Your task to perform on an android device: install app "Lyft - Rideshare, Bikes, Scooters & Transit" Image 0: 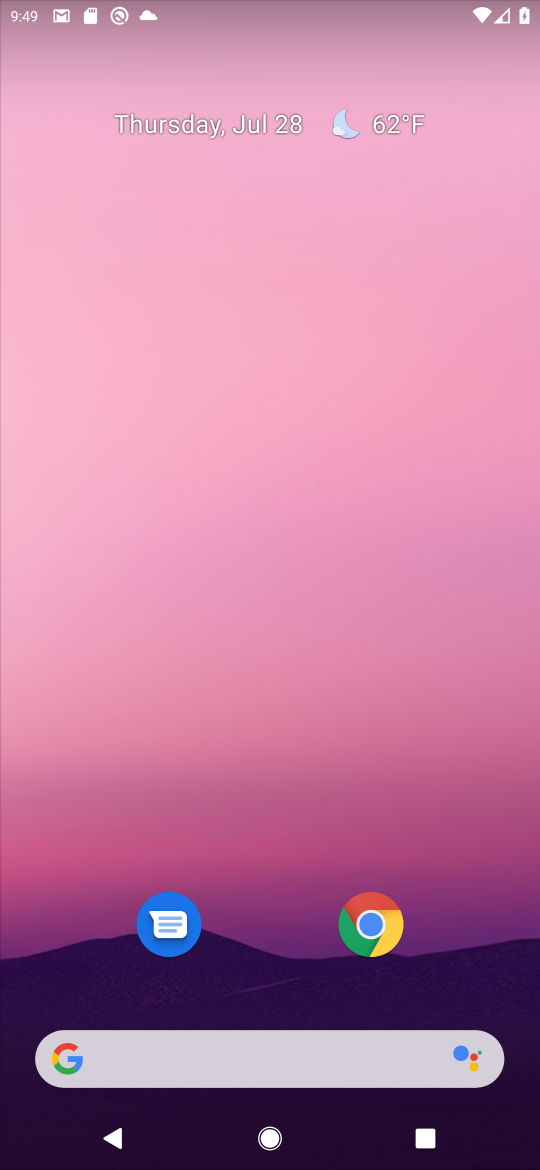
Step 0: drag from (253, 1049) to (305, 183)
Your task to perform on an android device: install app "Lyft - Rideshare, Bikes, Scooters & Transit" Image 1: 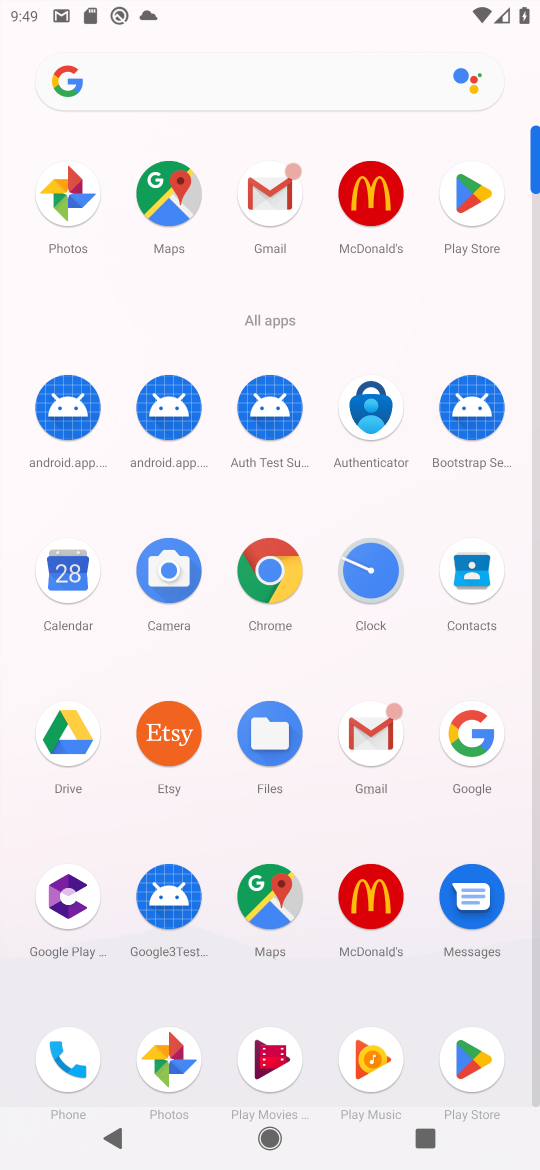
Step 1: click (490, 196)
Your task to perform on an android device: install app "Lyft - Rideshare, Bikes, Scooters & Transit" Image 2: 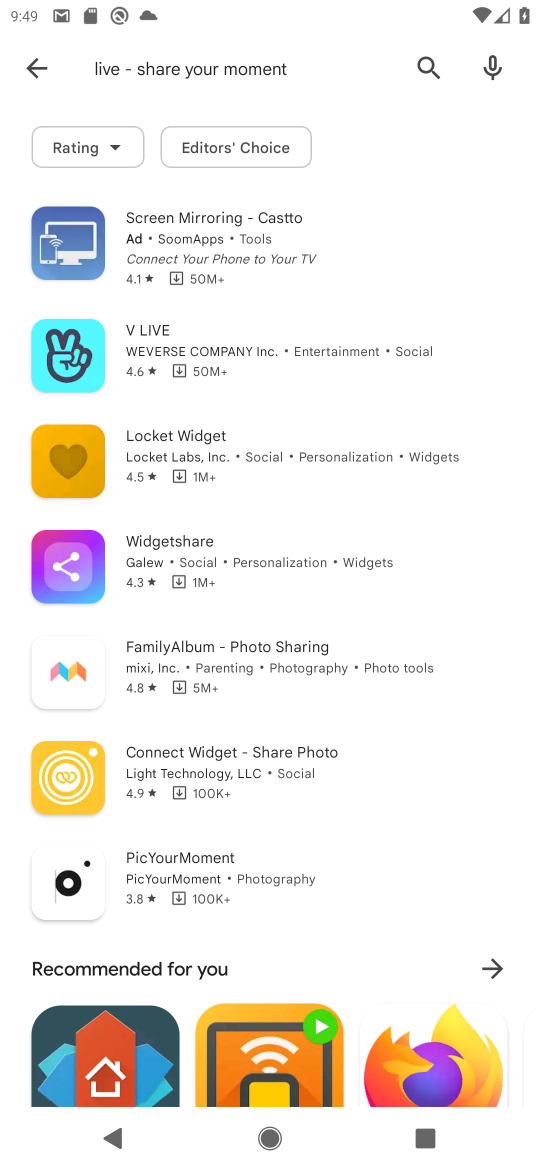
Step 2: click (426, 61)
Your task to perform on an android device: install app "Lyft - Rideshare, Bikes, Scooters & Transit" Image 3: 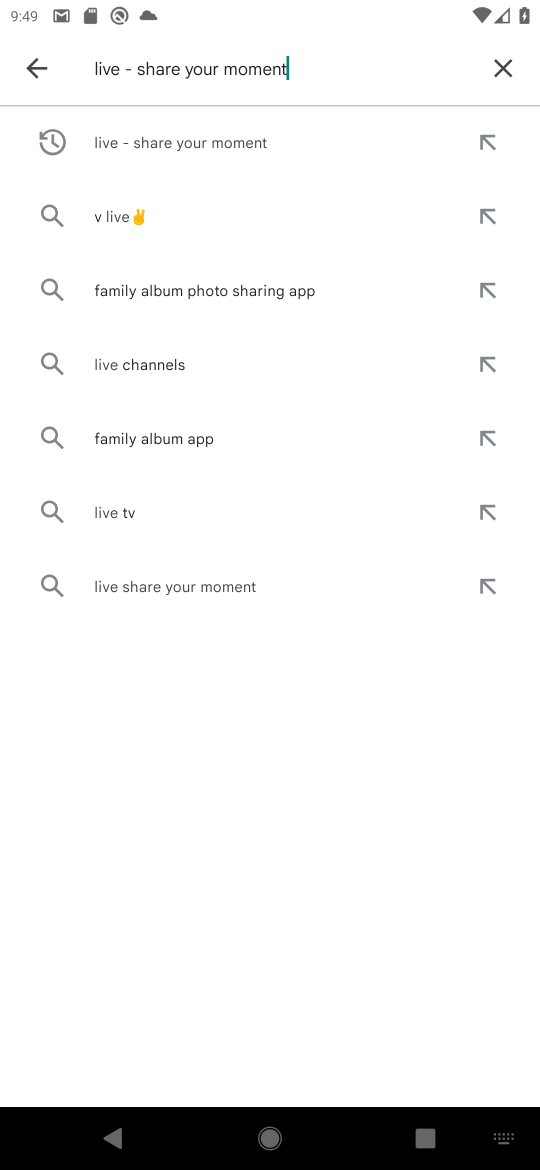
Step 3: click (512, 64)
Your task to perform on an android device: install app "Lyft - Rideshare, Bikes, Scooters & Transit" Image 4: 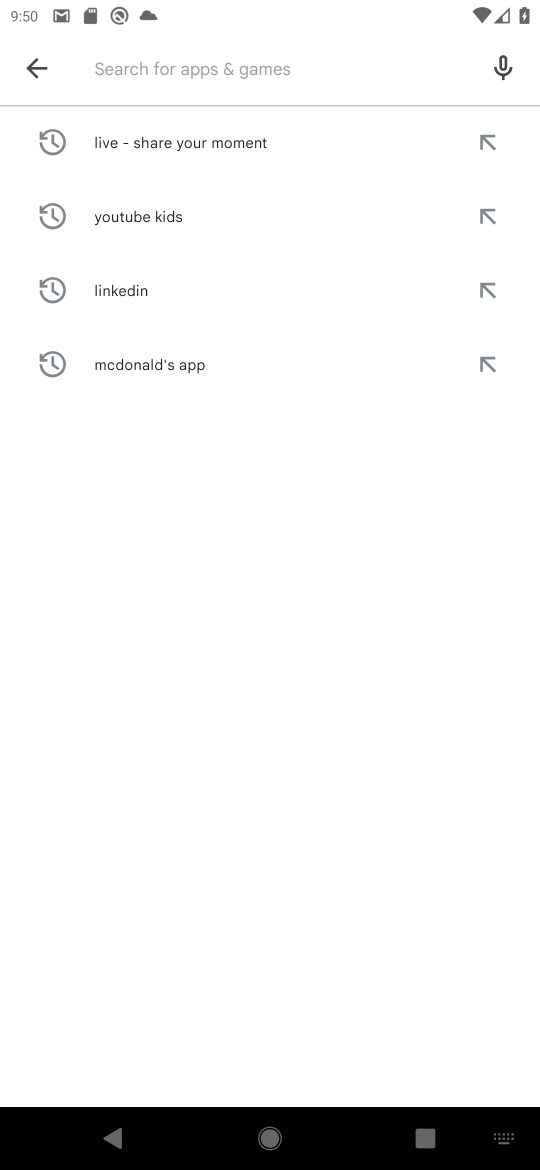
Step 4: type "Lyft - Rideshare, Bikes, Scooters & Transit"
Your task to perform on an android device: install app "Lyft - Rideshare, Bikes, Scooters & Transit" Image 5: 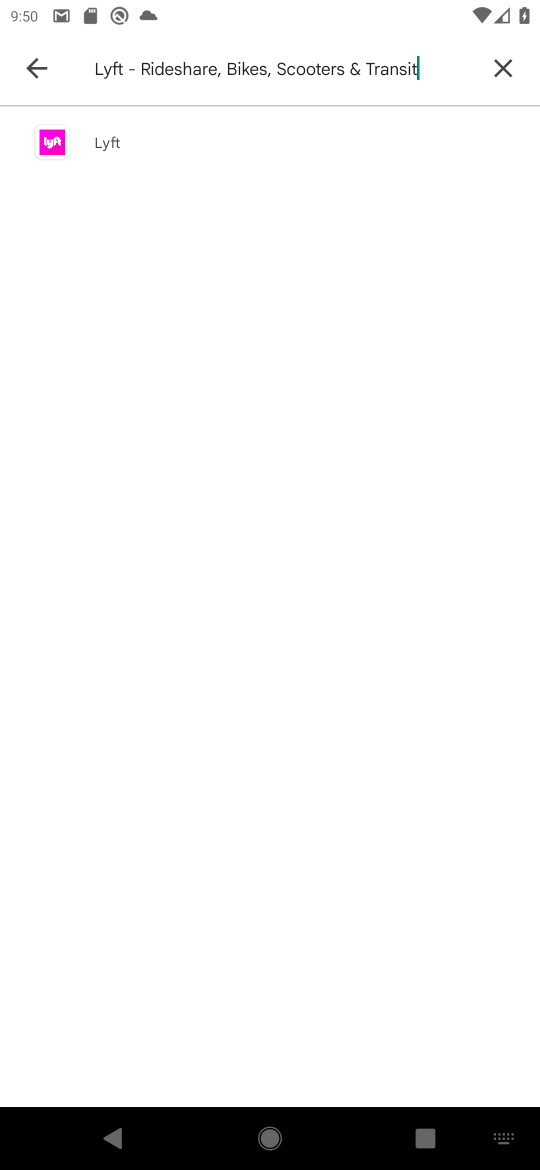
Step 5: click (125, 144)
Your task to perform on an android device: install app "Lyft - Rideshare, Bikes, Scooters & Transit" Image 6: 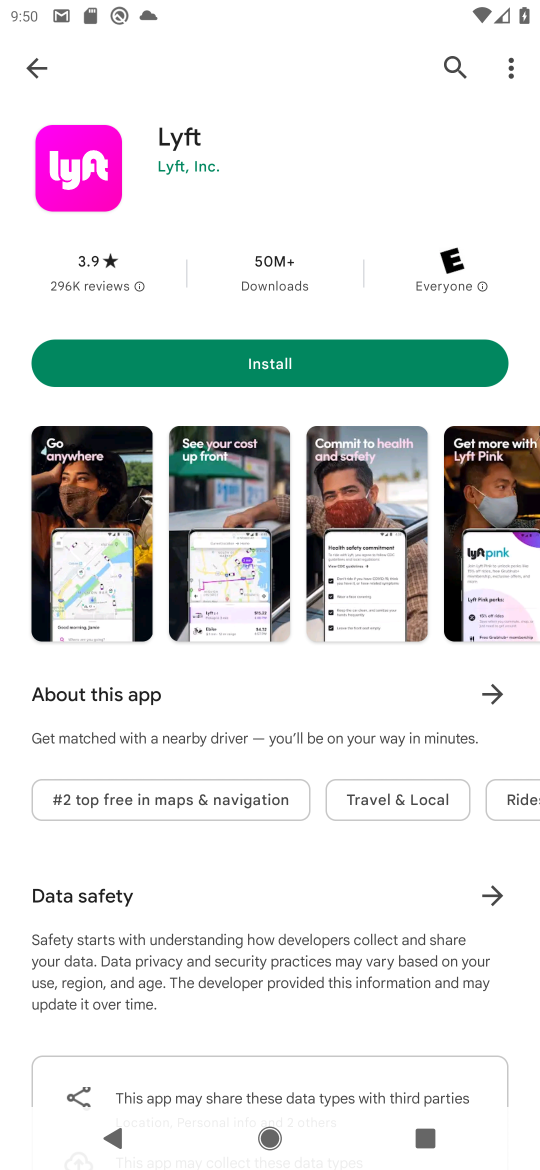
Step 6: click (310, 381)
Your task to perform on an android device: install app "Lyft - Rideshare, Bikes, Scooters & Transit" Image 7: 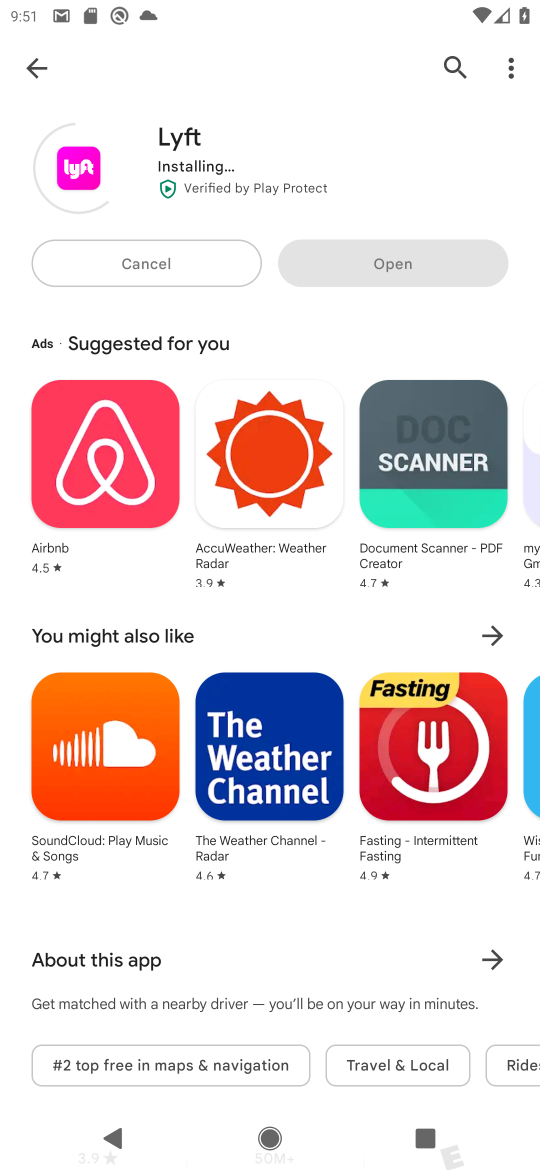
Step 7: task complete